Your task to perform on an android device: View the shopping cart on walmart.com. Search for "logitech g pro" on walmart.com, select the first entry, add it to the cart, then select checkout. Image 0: 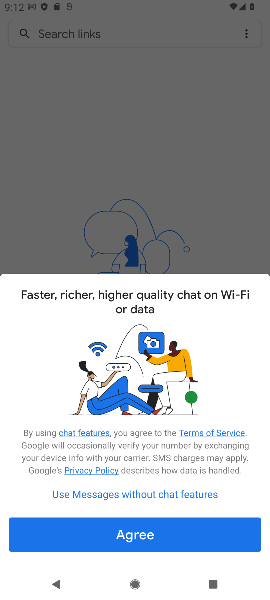
Step 0: press home button
Your task to perform on an android device: View the shopping cart on walmart.com. Search for "logitech g pro" on walmart.com, select the first entry, add it to the cart, then select checkout. Image 1: 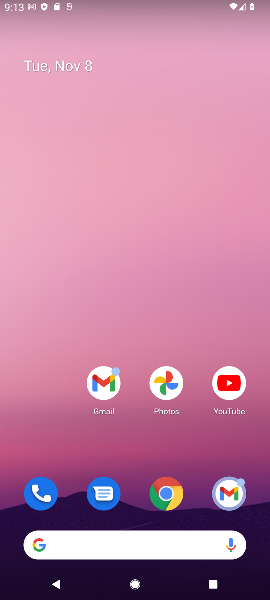
Step 1: click (168, 492)
Your task to perform on an android device: View the shopping cart on walmart.com. Search for "logitech g pro" on walmart.com, select the first entry, add it to the cart, then select checkout. Image 2: 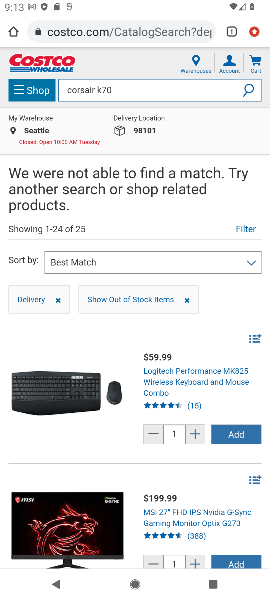
Step 2: click (97, 28)
Your task to perform on an android device: View the shopping cart on walmart.com. Search for "logitech g pro" on walmart.com, select the first entry, add it to the cart, then select checkout. Image 3: 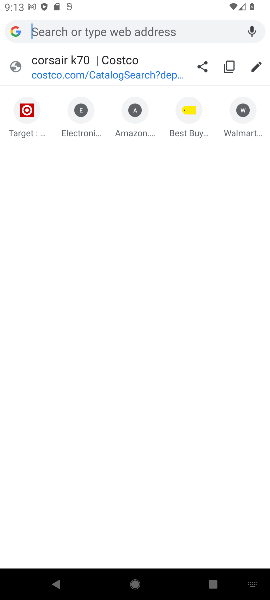
Step 3: type "walmart.com"
Your task to perform on an android device: View the shopping cart on walmart.com. Search for "logitech g pro" on walmart.com, select the first entry, add it to the cart, then select checkout. Image 4: 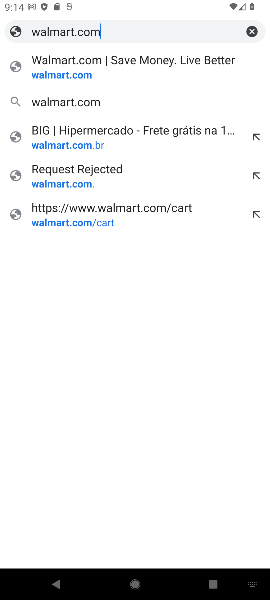
Step 4: click (59, 76)
Your task to perform on an android device: View the shopping cart on walmart.com. Search for "logitech g pro" on walmart.com, select the first entry, add it to the cart, then select checkout. Image 5: 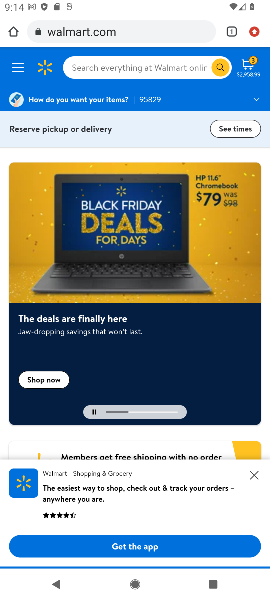
Step 5: click (253, 64)
Your task to perform on an android device: View the shopping cart on walmart.com. Search for "logitech g pro" on walmart.com, select the first entry, add it to the cart, then select checkout. Image 6: 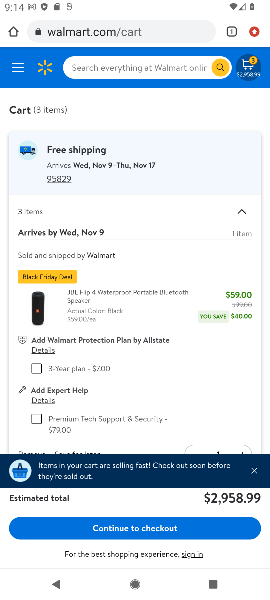
Step 6: click (157, 67)
Your task to perform on an android device: View the shopping cart on walmart.com. Search for "logitech g pro" on walmart.com, select the first entry, add it to the cart, then select checkout. Image 7: 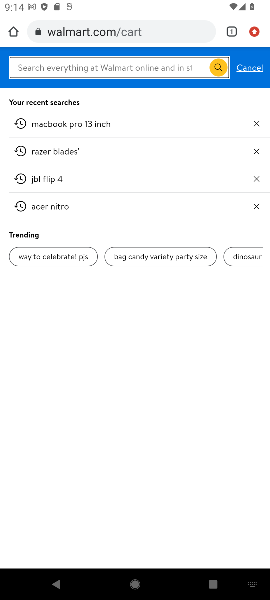
Step 7: type "logitech g pro"
Your task to perform on an android device: View the shopping cart on walmart.com. Search for "logitech g pro" on walmart.com, select the first entry, add it to the cart, then select checkout. Image 8: 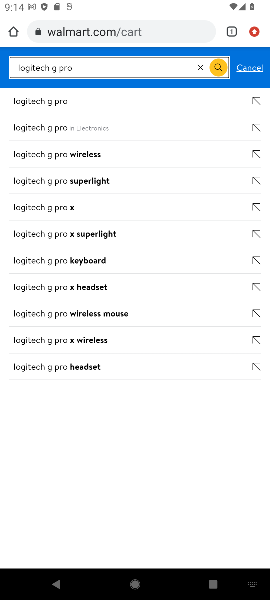
Step 8: click (31, 97)
Your task to perform on an android device: View the shopping cart on walmart.com. Search for "logitech g pro" on walmart.com, select the first entry, add it to the cart, then select checkout. Image 9: 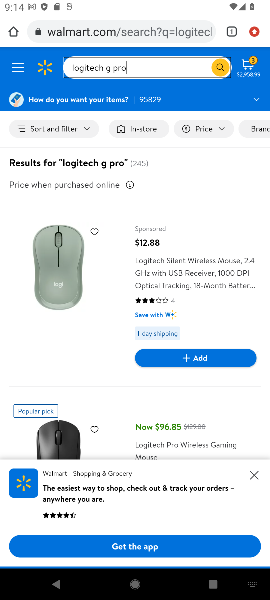
Step 9: task complete